Your task to perform on an android device: turn on the 24-hour format for clock Image 0: 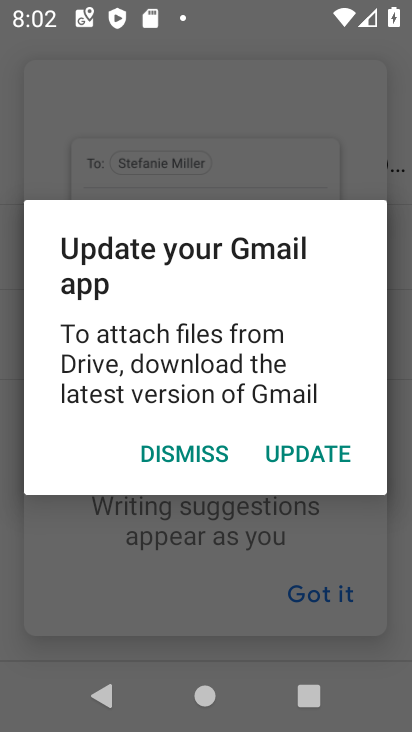
Step 0: click (286, 446)
Your task to perform on an android device: turn on the 24-hour format for clock Image 1: 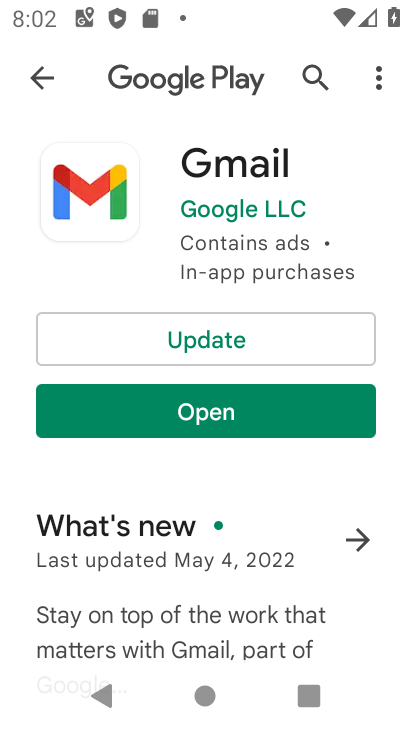
Step 1: click (243, 349)
Your task to perform on an android device: turn on the 24-hour format for clock Image 2: 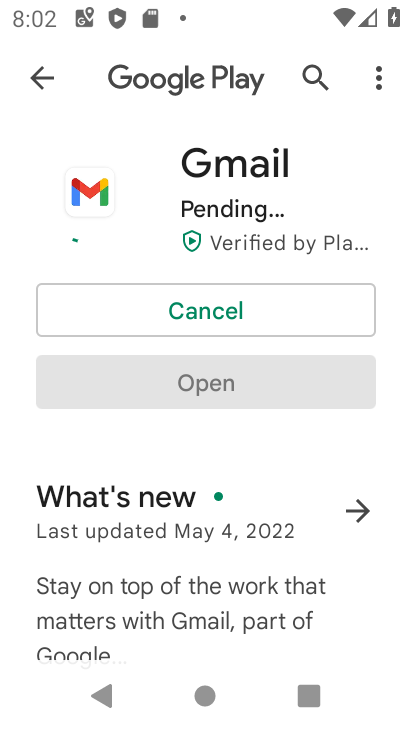
Step 2: press home button
Your task to perform on an android device: turn on the 24-hour format for clock Image 3: 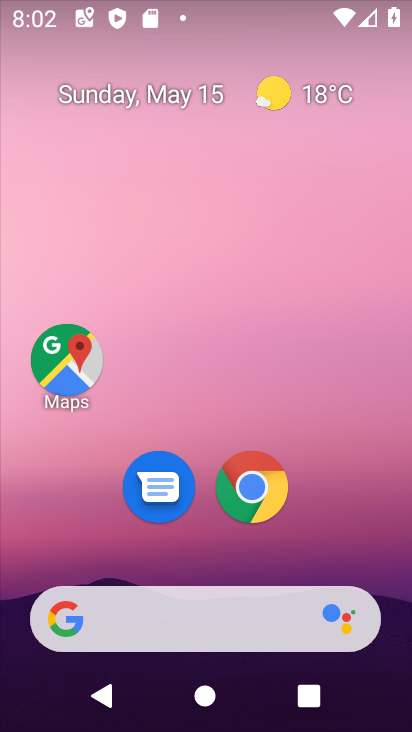
Step 3: drag from (360, 500) to (315, 222)
Your task to perform on an android device: turn on the 24-hour format for clock Image 4: 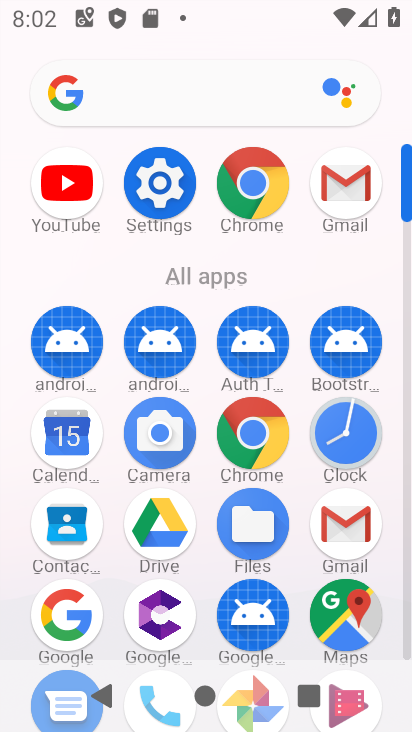
Step 4: click (345, 453)
Your task to perform on an android device: turn on the 24-hour format for clock Image 5: 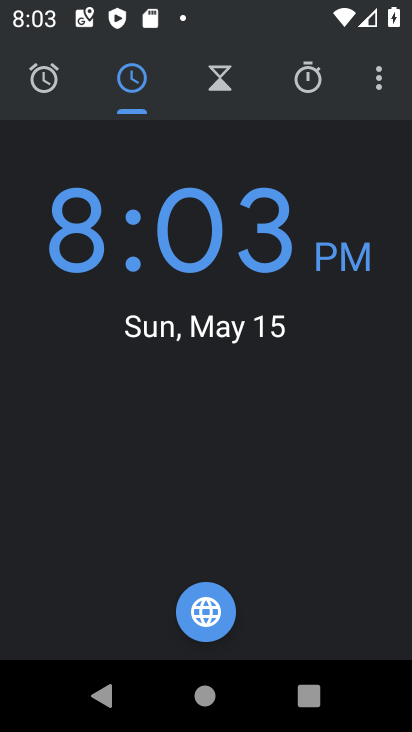
Step 5: click (377, 77)
Your task to perform on an android device: turn on the 24-hour format for clock Image 6: 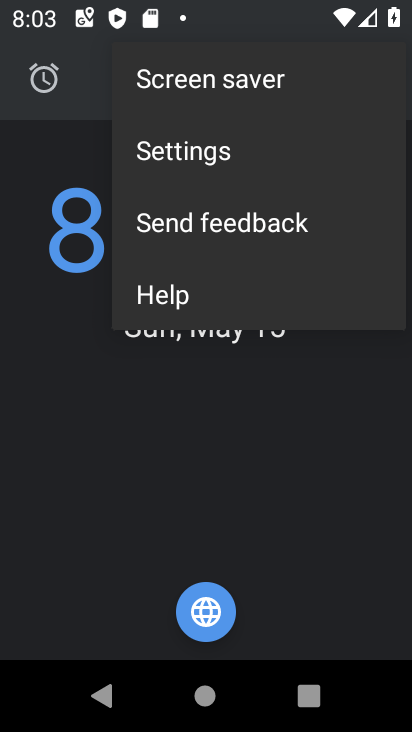
Step 6: click (202, 148)
Your task to perform on an android device: turn on the 24-hour format for clock Image 7: 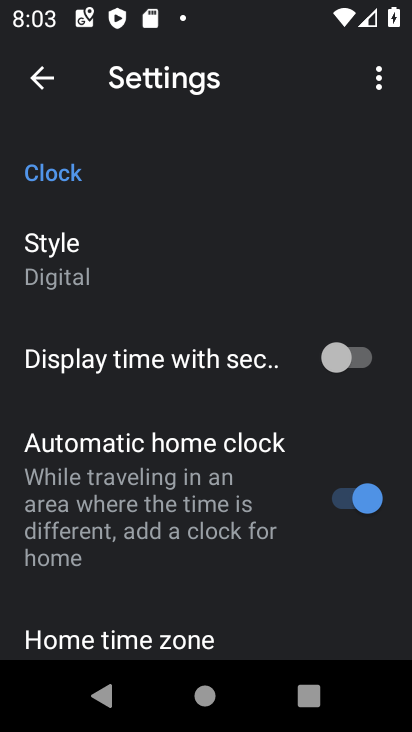
Step 7: drag from (253, 605) to (209, 326)
Your task to perform on an android device: turn on the 24-hour format for clock Image 8: 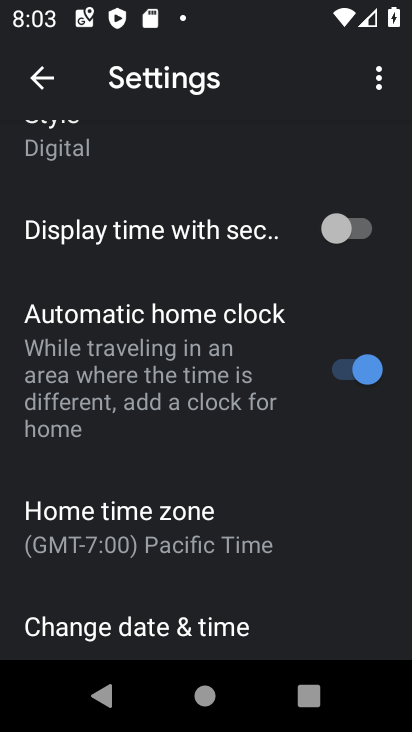
Step 8: drag from (260, 600) to (252, 366)
Your task to perform on an android device: turn on the 24-hour format for clock Image 9: 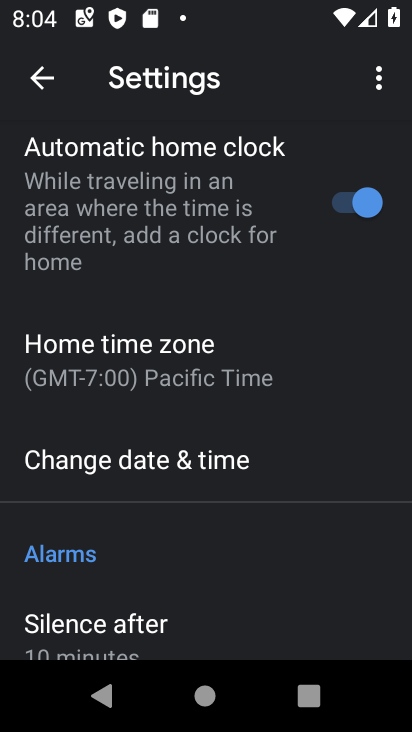
Step 9: click (182, 425)
Your task to perform on an android device: turn on the 24-hour format for clock Image 10: 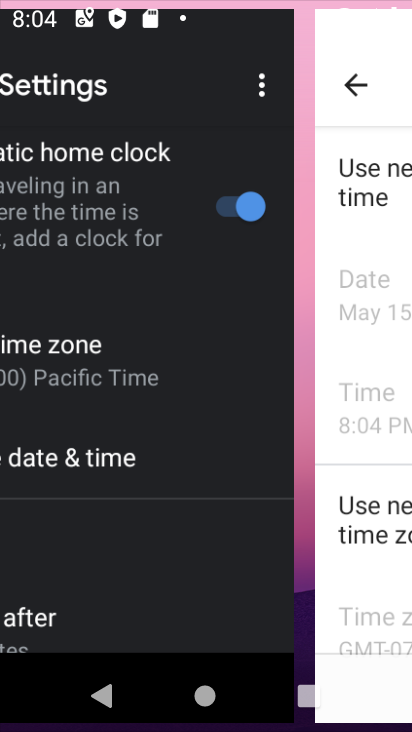
Step 10: click (85, 456)
Your task to perform on an android device: turn on the 24-hour format for clock Image 11: 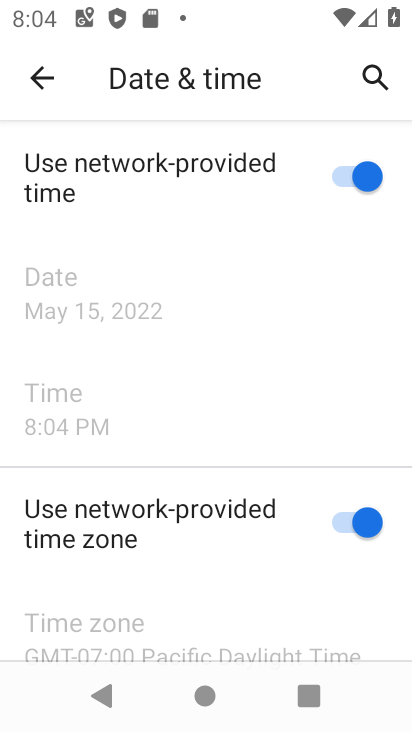
Step 11: drag from (228, 605) to (224, 431)
Your task to perform on an android device: turn on the 24-hour format for clock Image 12: 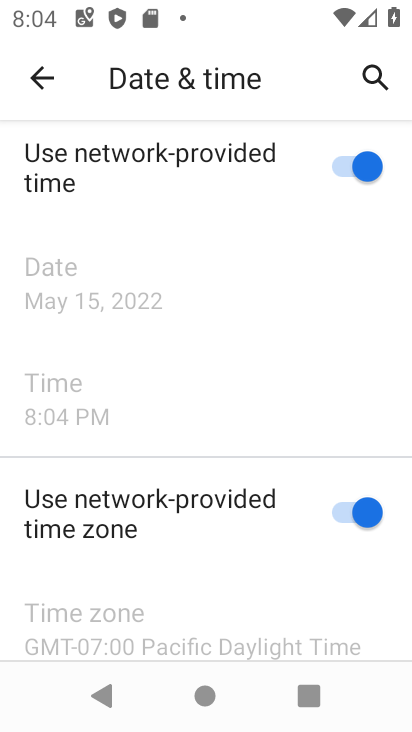
Step 12: drag from (239, 635) to (245, 445)
Your task to perform on an android device: turn on the 24-hour format for clock Image 13: 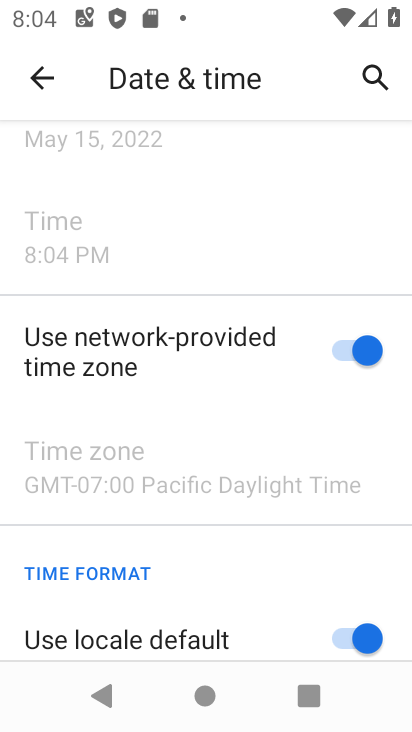
Step 13: drag from (274, 632) to (242, 386)
Your task to perform on an android device: turn on the 24-hour format for clock Image 14: 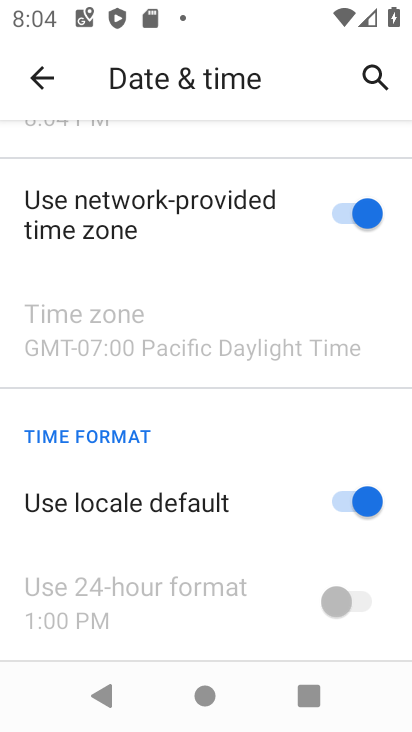
Step 14: click (340, 502)
Your task to perform on an android device: turn on the 24-hour format for clock Image 15: 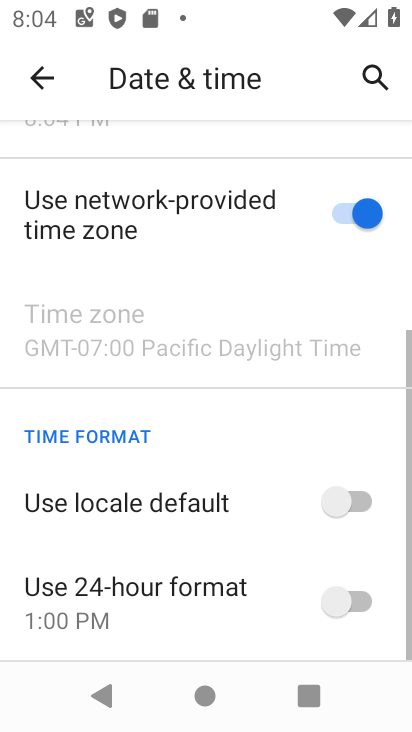
Step 15: click (352, 594)
Your task to perform on an android device: turn on the 24-hour format for clock Image 16: 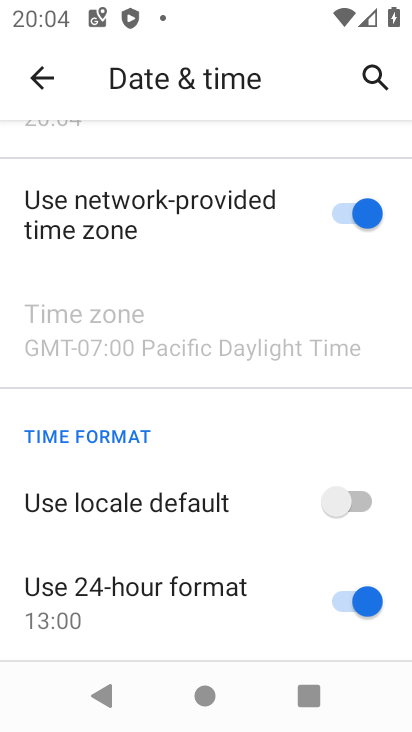
Step 16: task complete